Your task to perform on an android device: Go to settings Image 0: 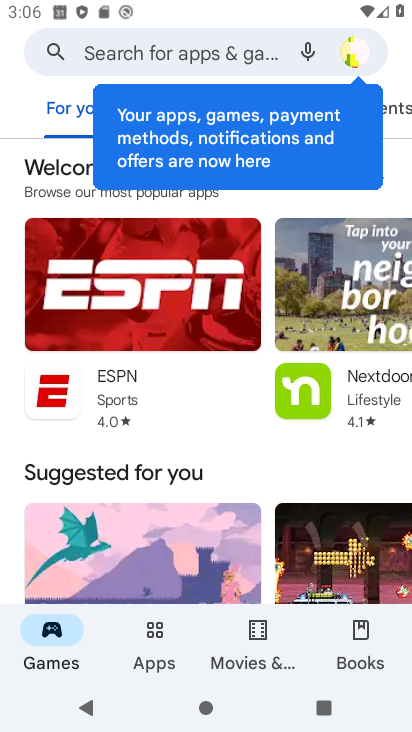
Step 0: press home button
Your task to perform on an android device: Go to settings Image 1: 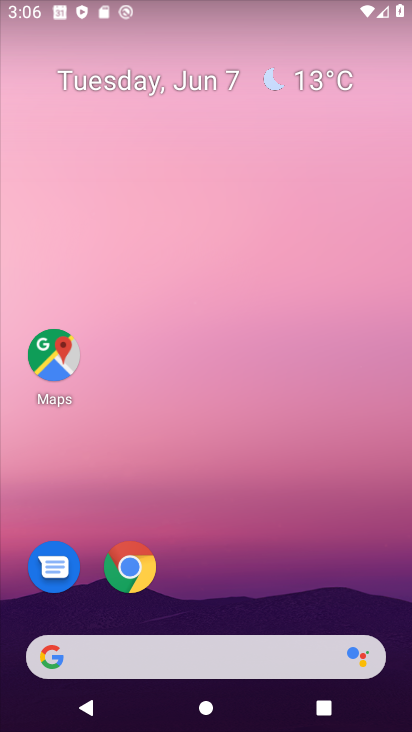
Step 1: drag from (300, 530) to (338, 41)
Your task to perform on an android device: Go to settings Image 2: 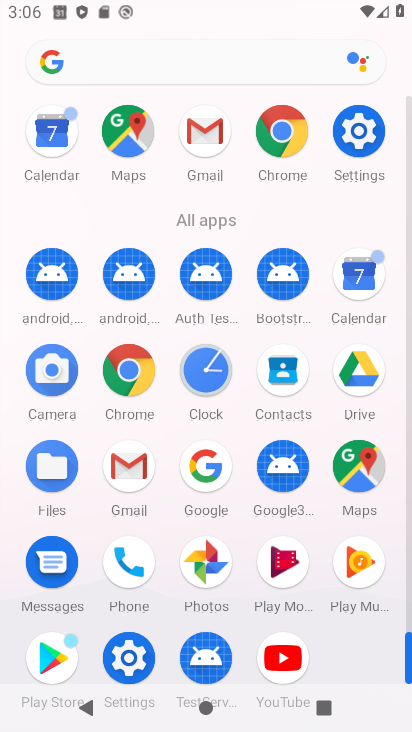
Step 2: click (354, 139)
Your task to perform on an android device: Go to settings Image 3: 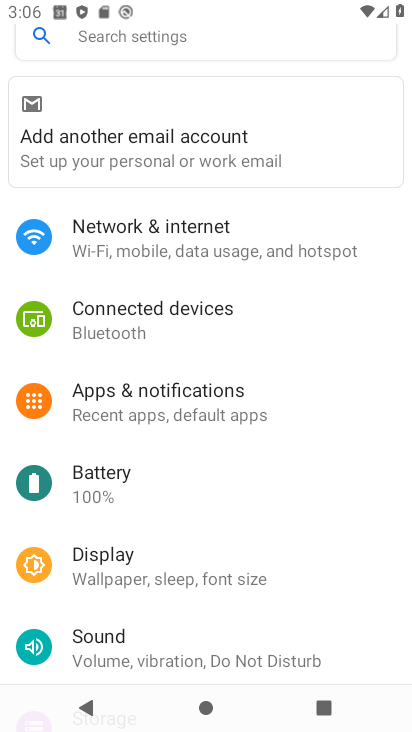
Step 3: task complete